Your task to perform on an android device: turn on airplane mode Image 0: 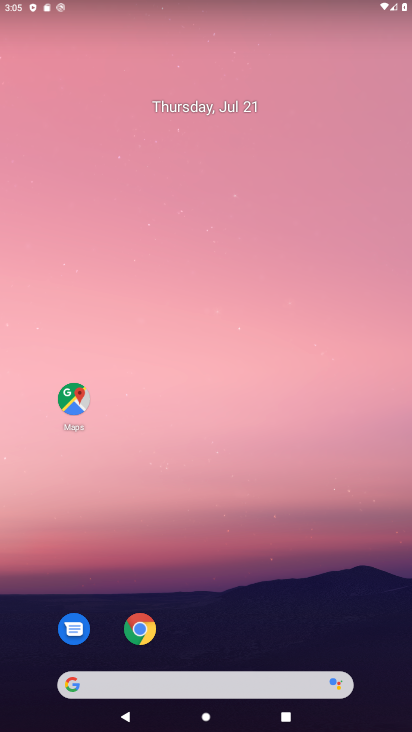
Step 0: drag from (314, 8) to (288, 408)
Your task to perform on an android device: turn on airplane mode Image 1: 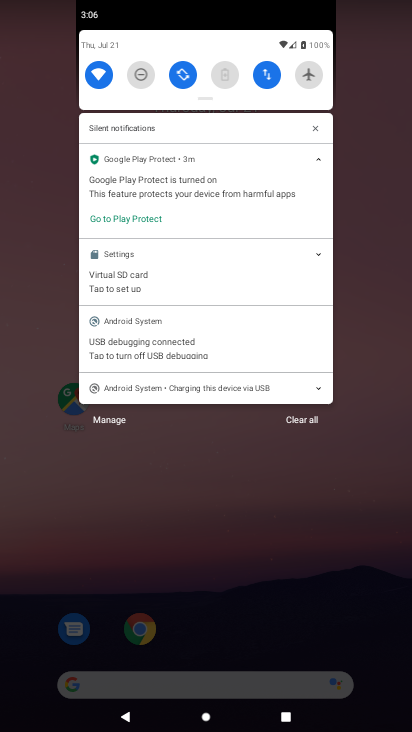
Step 1: click (308, 72)
Your task to perform on an android device: turn on airplane mode Image 2: 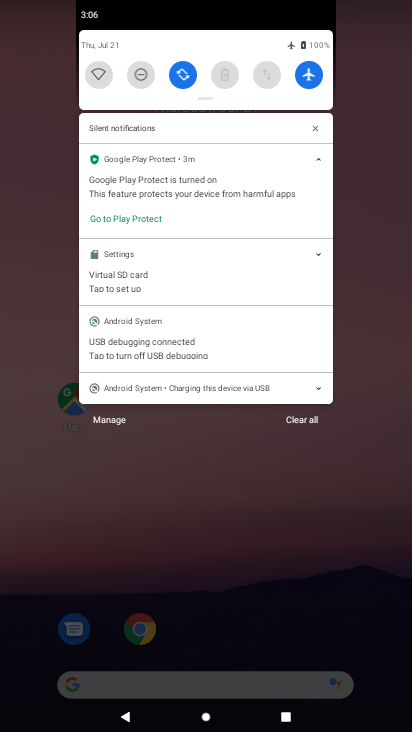
Step 2: task complete